Your task to perform on an android device: install app "Google Translate" Image 0: 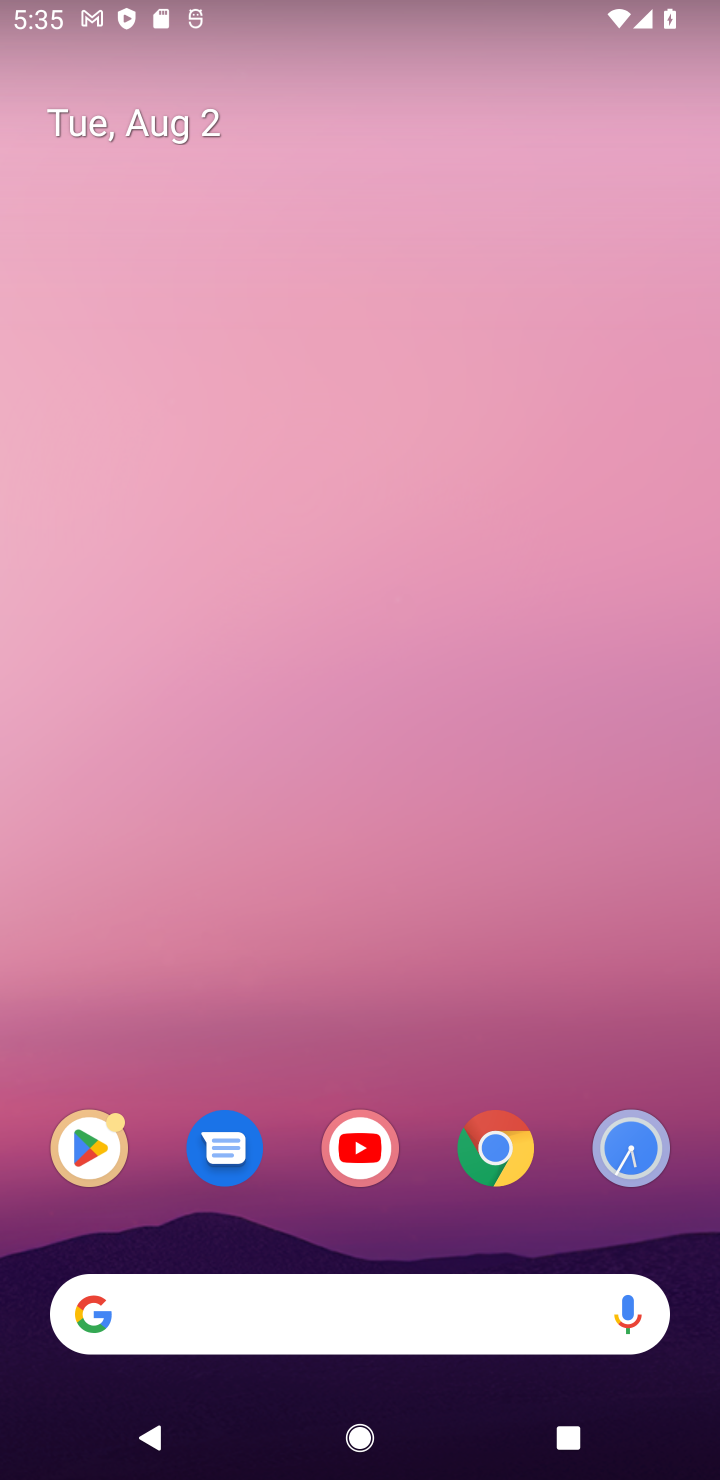
Step 0: drag from (433, 673) to (230, 122)
Your task to perform on an android device: install app "Google Translate" Image 1: 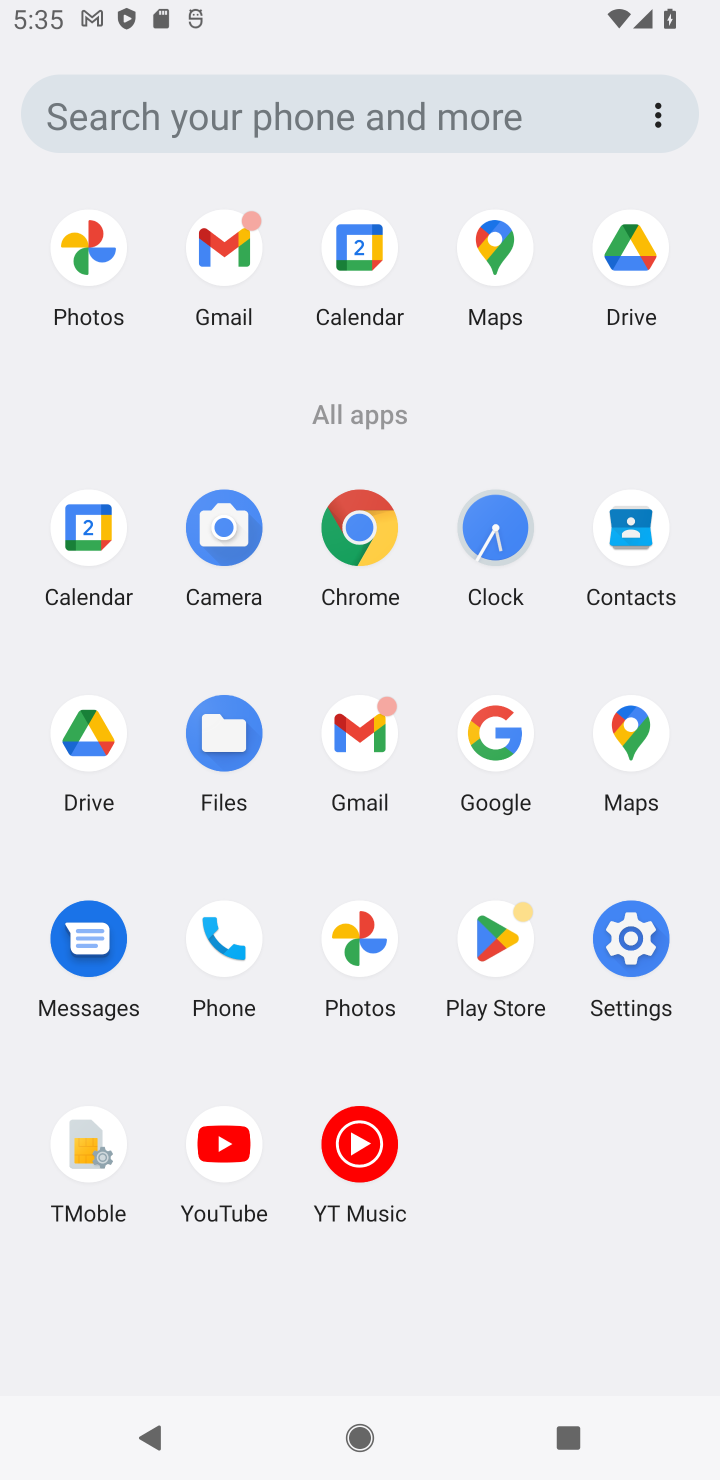
Step 1: click (519, 935)
Your task to perform on an android device: install app "Google Translate" Image 2: 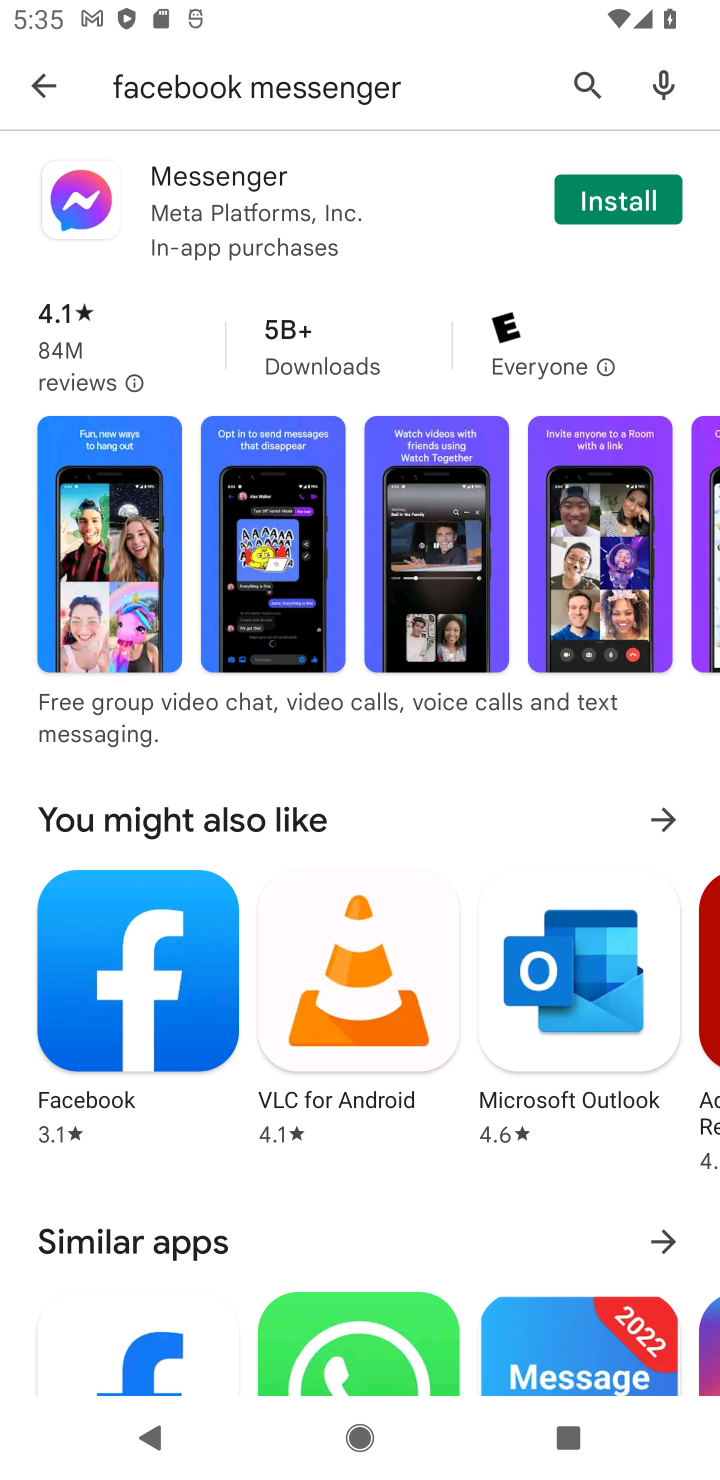
Step 2: press back button
Your task to perform on an android device: install app "Google Translate" Image 3: 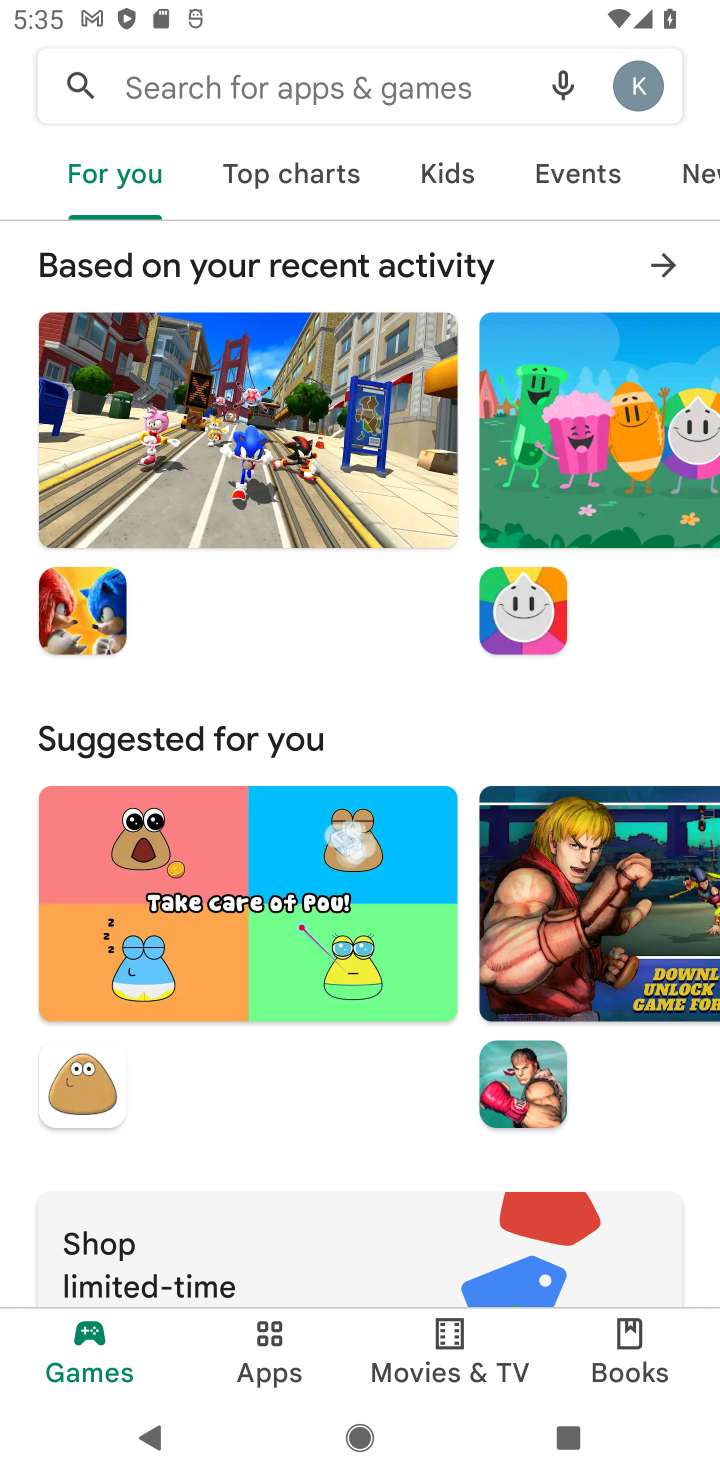
Step 3: click (206, 98)
Your task to perform on an android device: install app "Google Translate" Image 4: 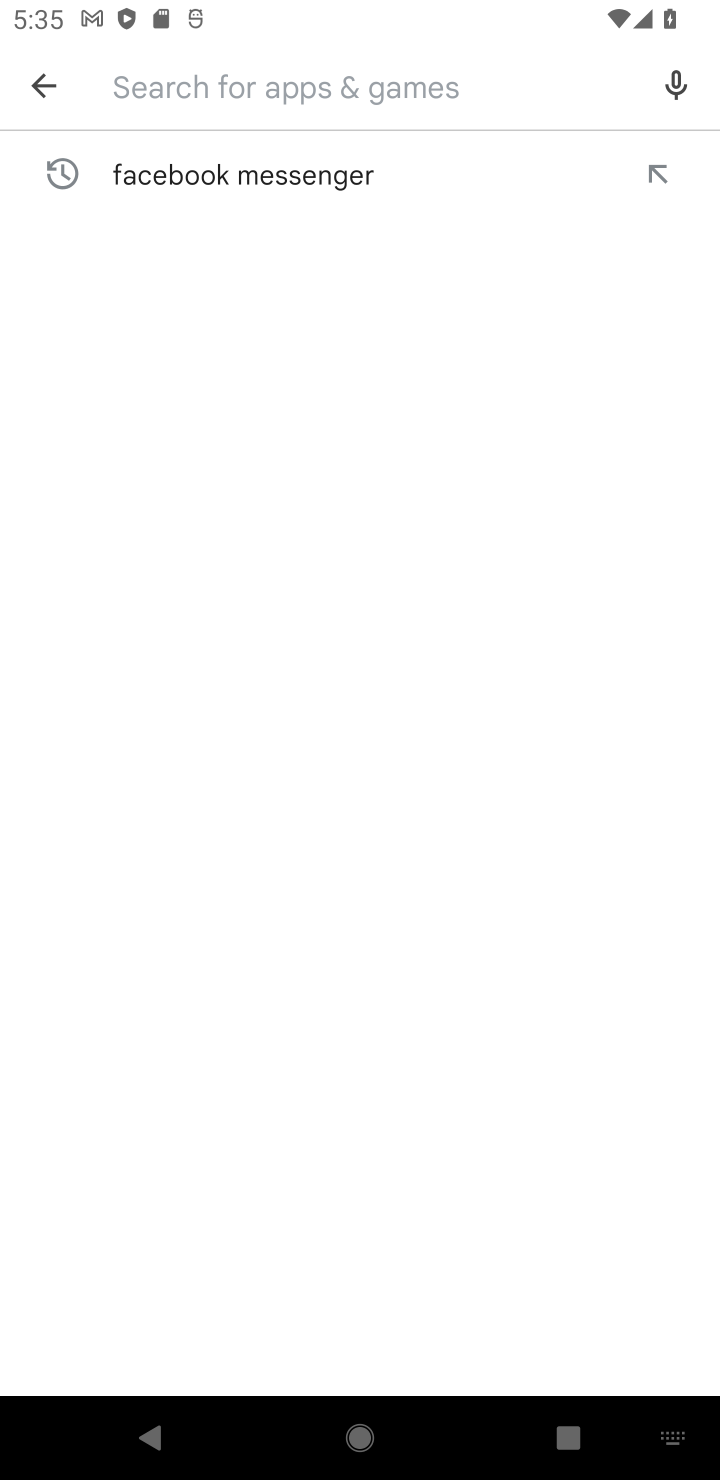
Step 4: type "Google Translate"
Your task to perform on an android device: install app "Google Translate" Image 5: 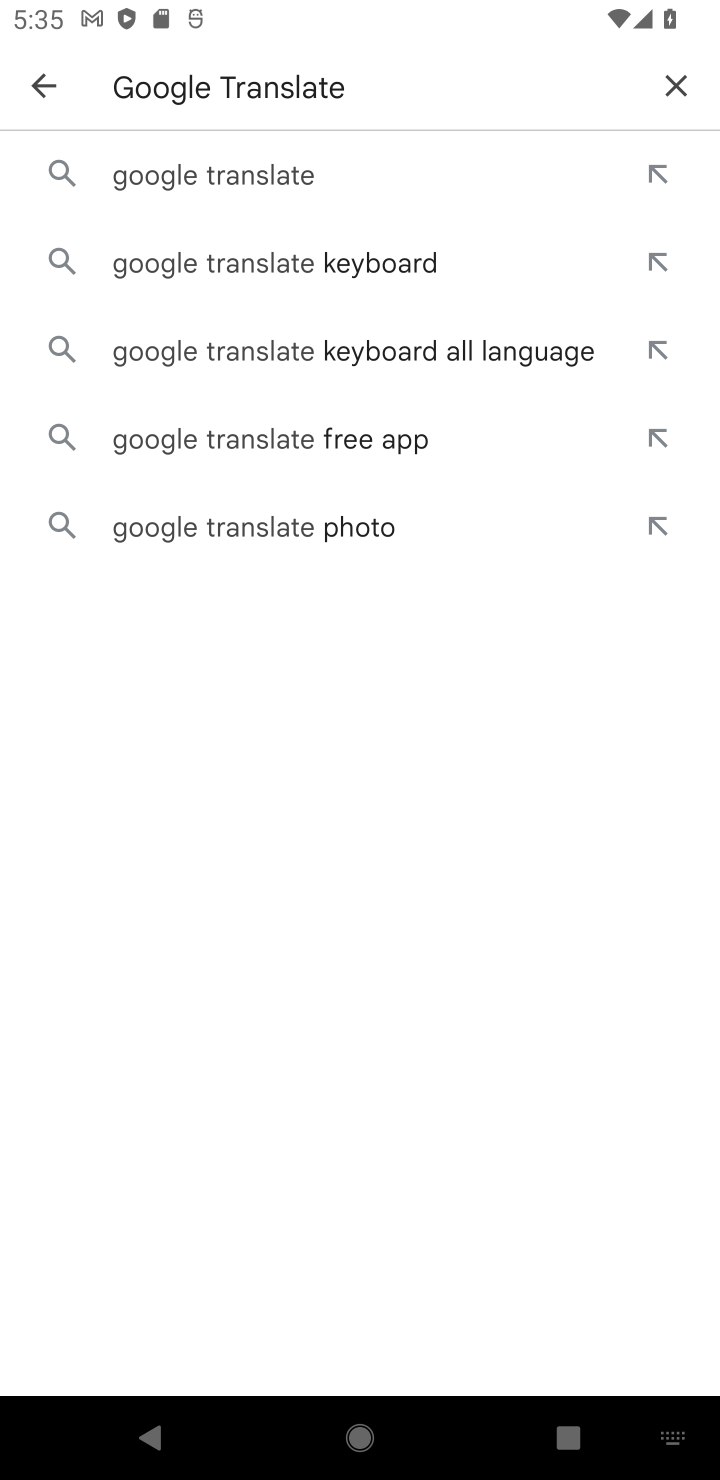
Step 5: click (195, 195)
Your task to perform on an android device: install app "Google Translate" Image 6: 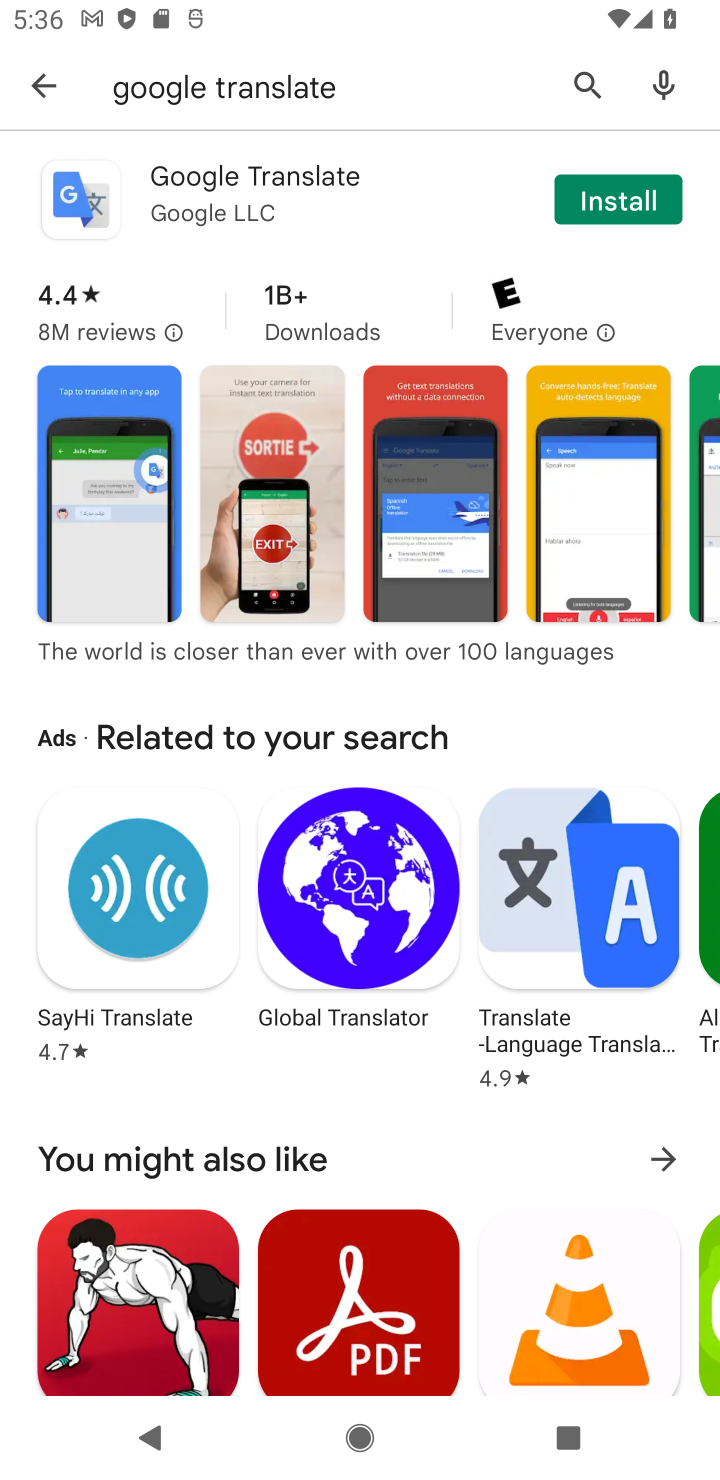
Step 6: click (613, 181)
Your task to perform on an android device: install app "Google Translate" Image 7: 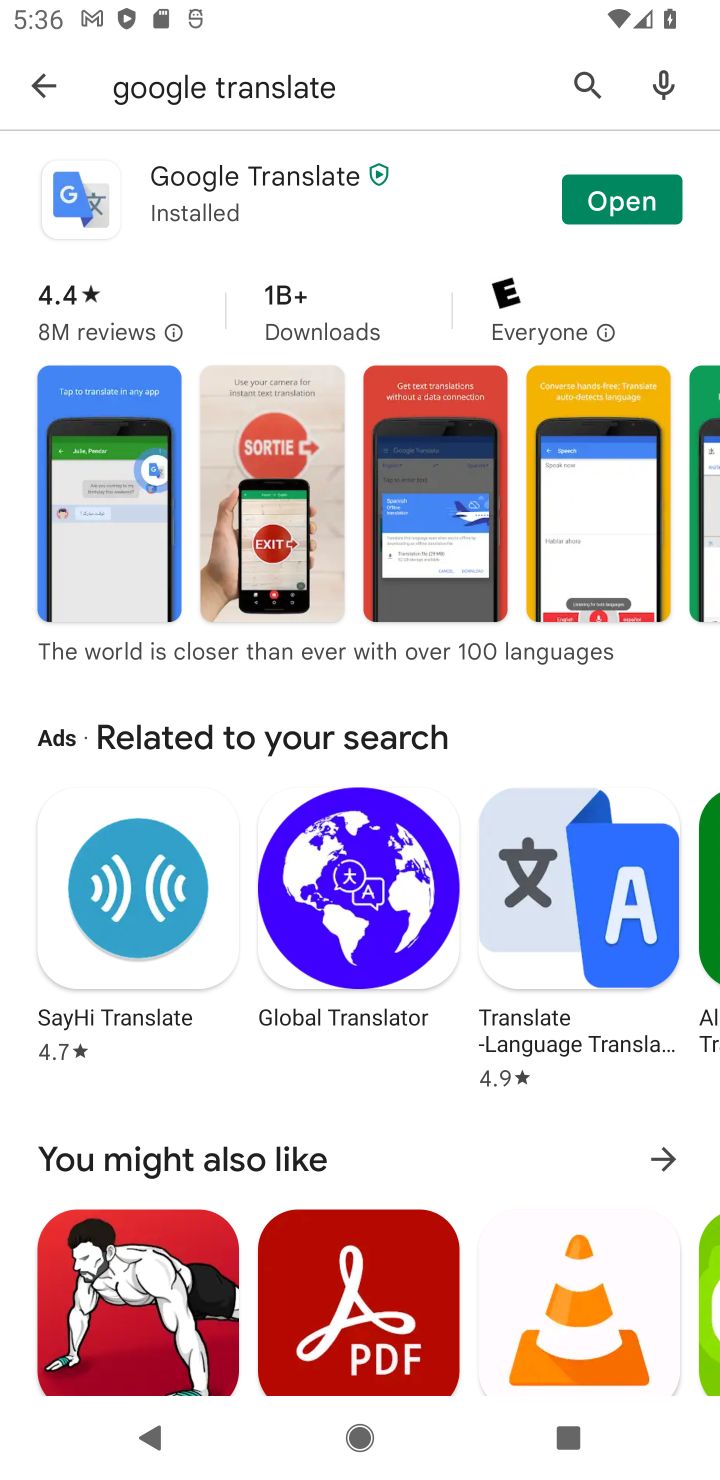
Step 7: task complete